Your task to perform on an android device: Open ESPN.com Image 0: 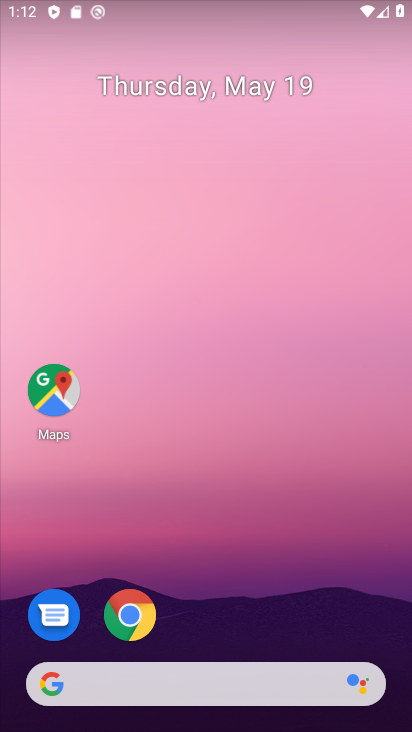
Step 0: drag from (268, 573) to (271, 130)
Your task to perform on an android device: Open ESPN.com Image 1: 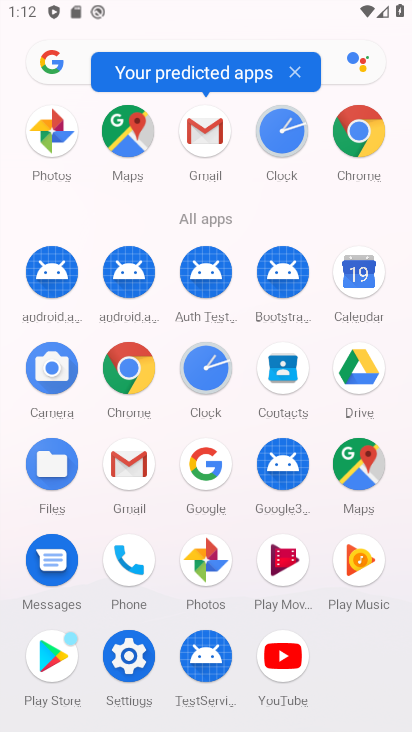
Step 1: click (354, 131)
Your task to perform on an android device: Open ESPN.com Image 2: 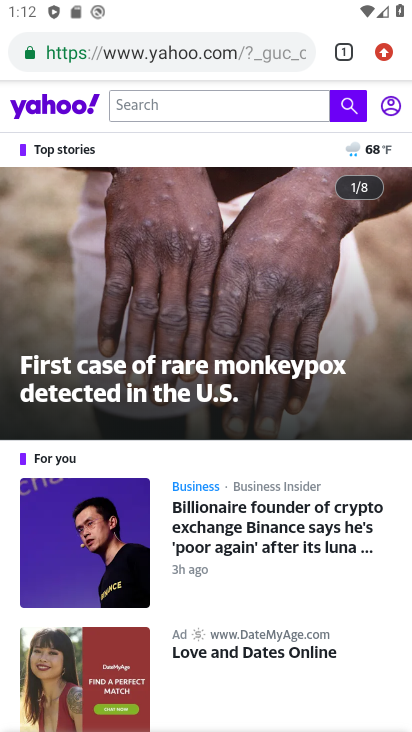
Step 2: click (222, 53)
Your task to perform on an android device: Open ESPN.com Image 3: 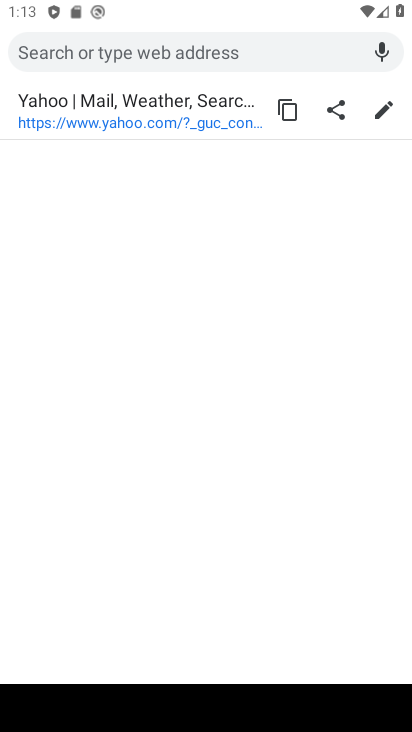
Step 3: type "espn.com"
Your task to perform on an android device: Open ESPN.com Image 4: 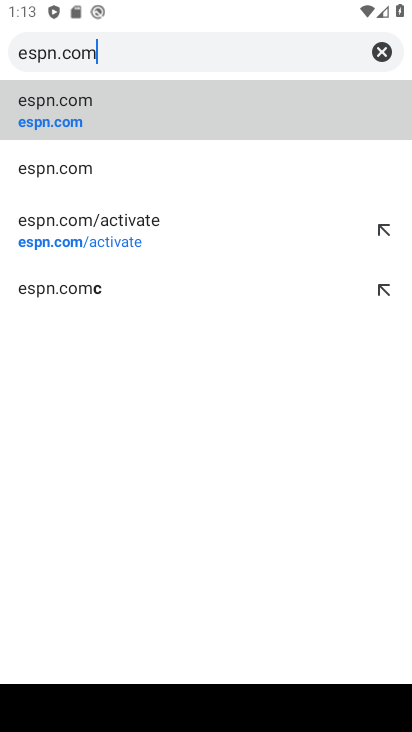
Step 4: click (67, 126)
Your task to perform on an android device: Open ESPN.com Image 5: 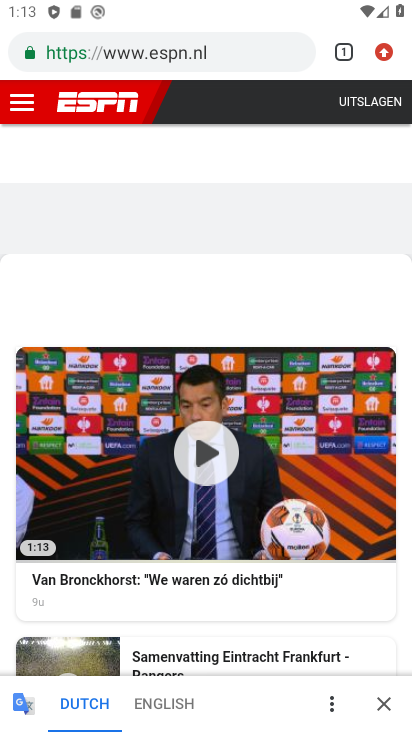
Step 5: task complete